Your task to perform on an android device: empty trash in google photos Image 0: 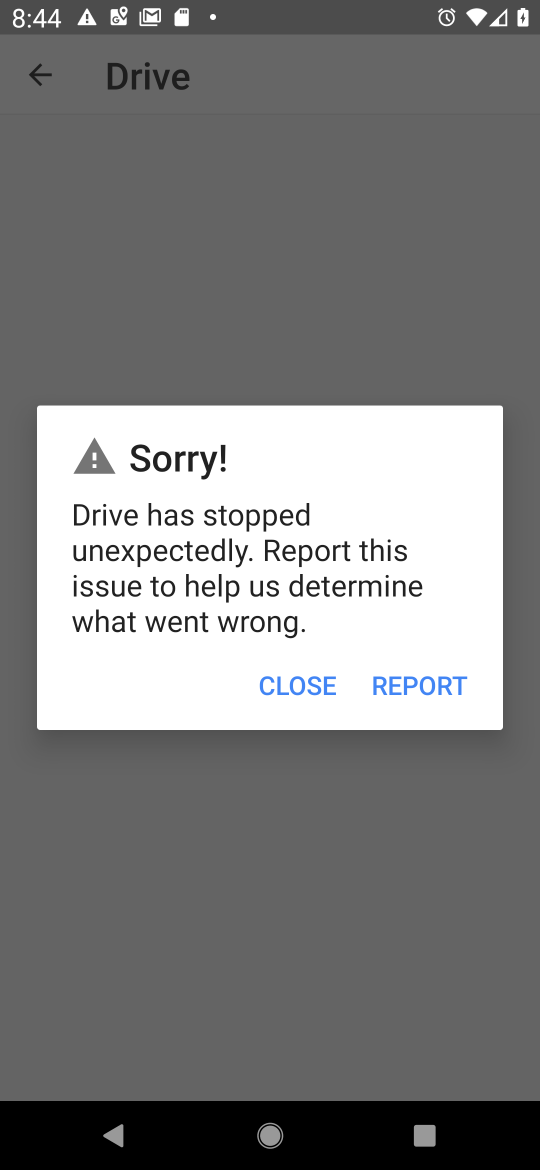
Step 0: press home button
Your task to perform on an android device: empty trash in google photos Image 1: 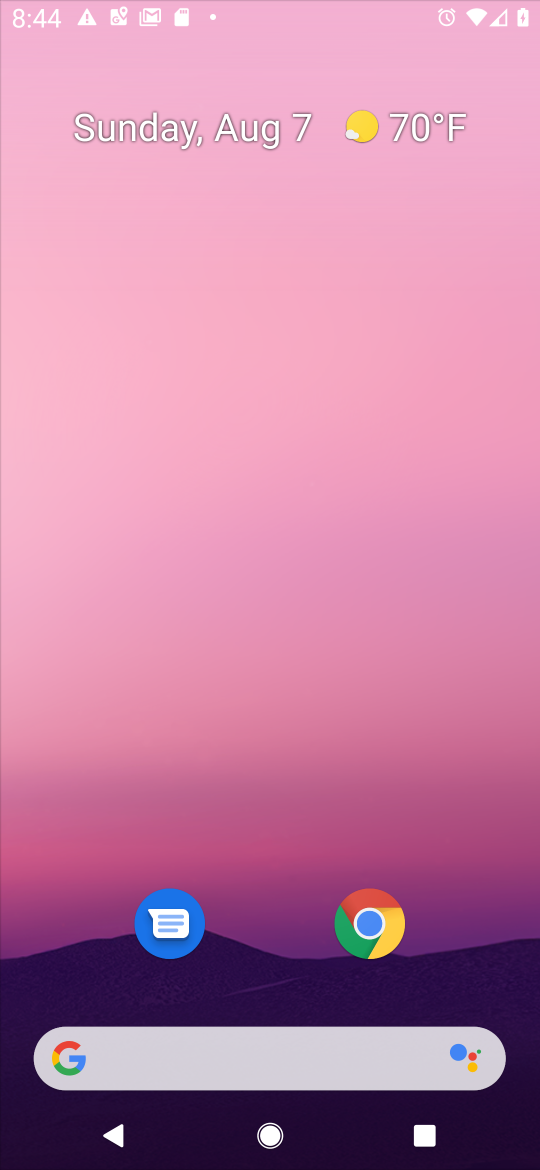
Step 1: drag from (486, 1071) to (177, 40)
Your task to perform on an android device: empty trash in google photos Image 2: 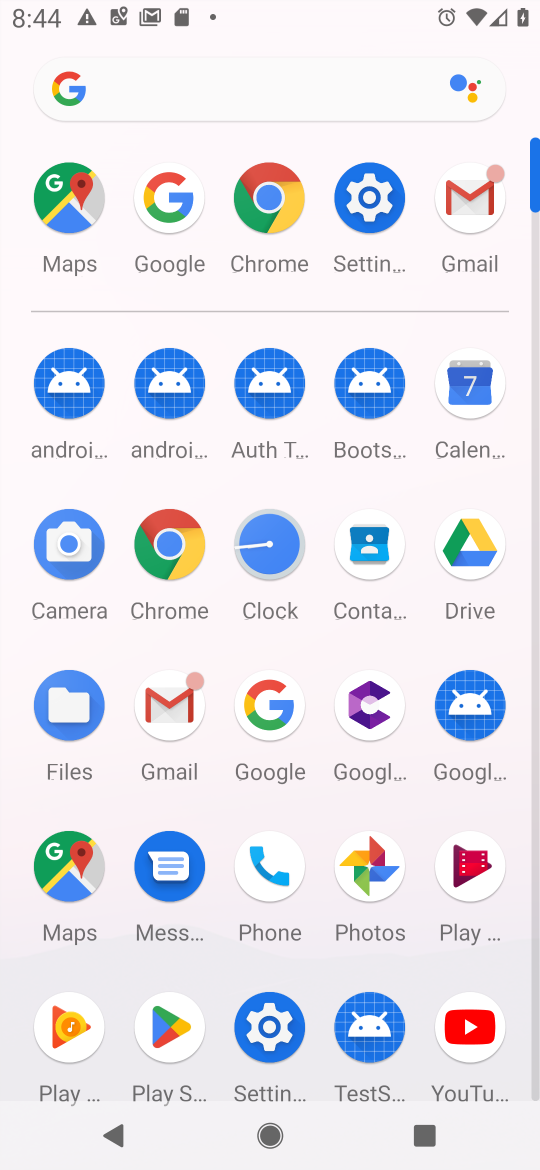
Step 2: click (366, 866)
Your task to perform on an android device: empty trash in google photos Image 3: 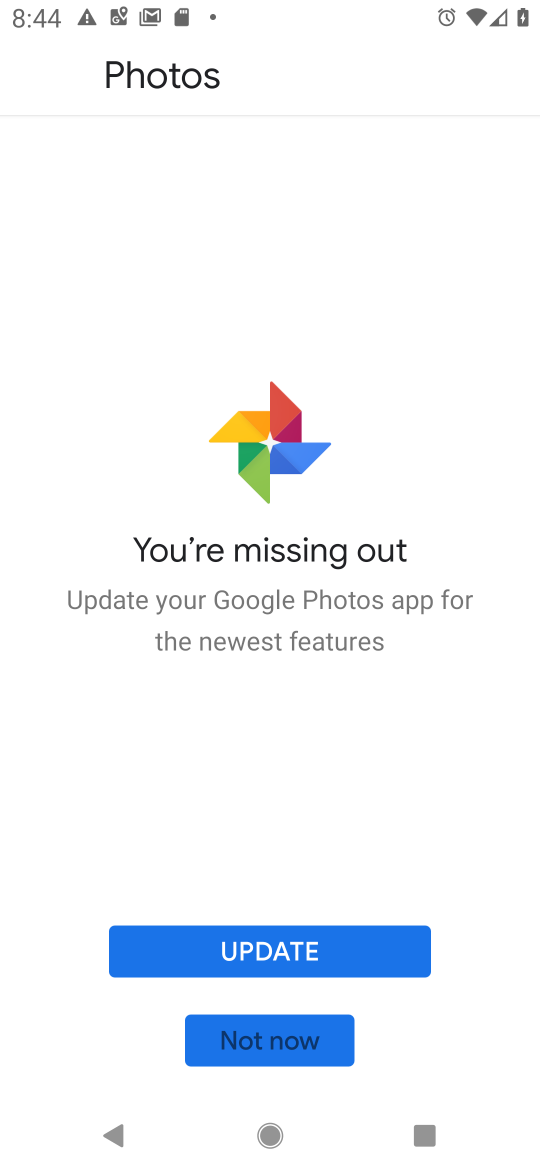
Step 3: click (414, 681)
Your task to perform on an android device: empty trash in google photos Image 4: 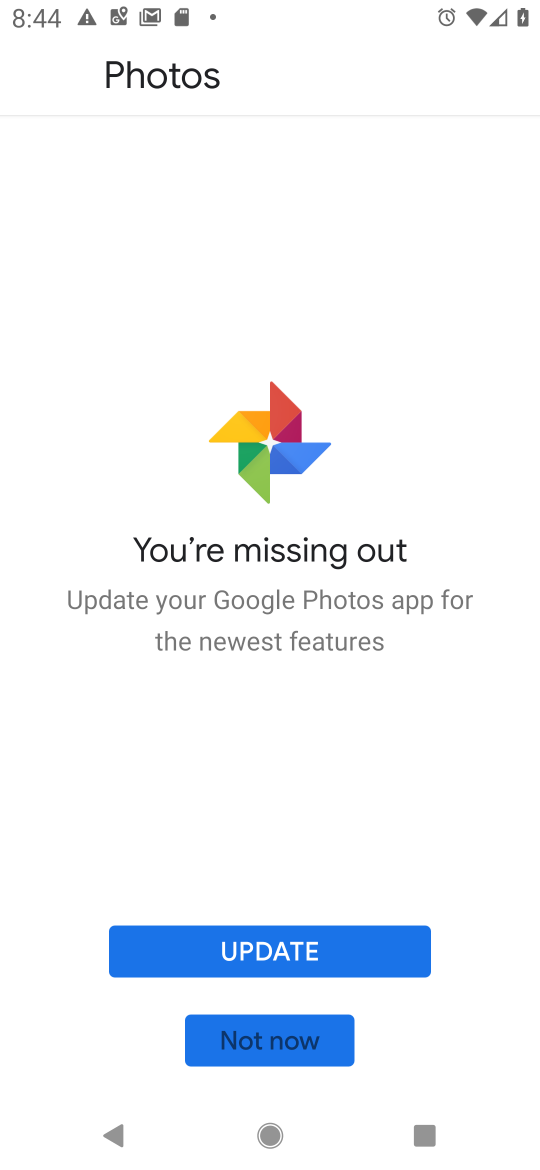
Step 4: click (238, 967)
Your task to perform on an android device: empty trash in google photos Image 5: 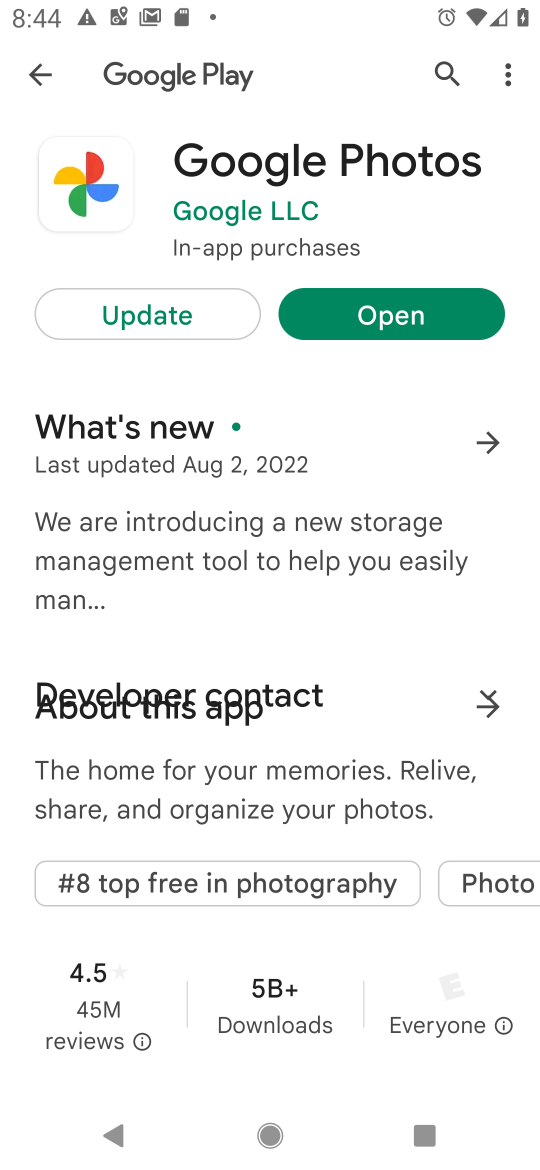
Step 5: click (131, 316)
Your task to perform on an android device: empty trash in google photos Image 6: 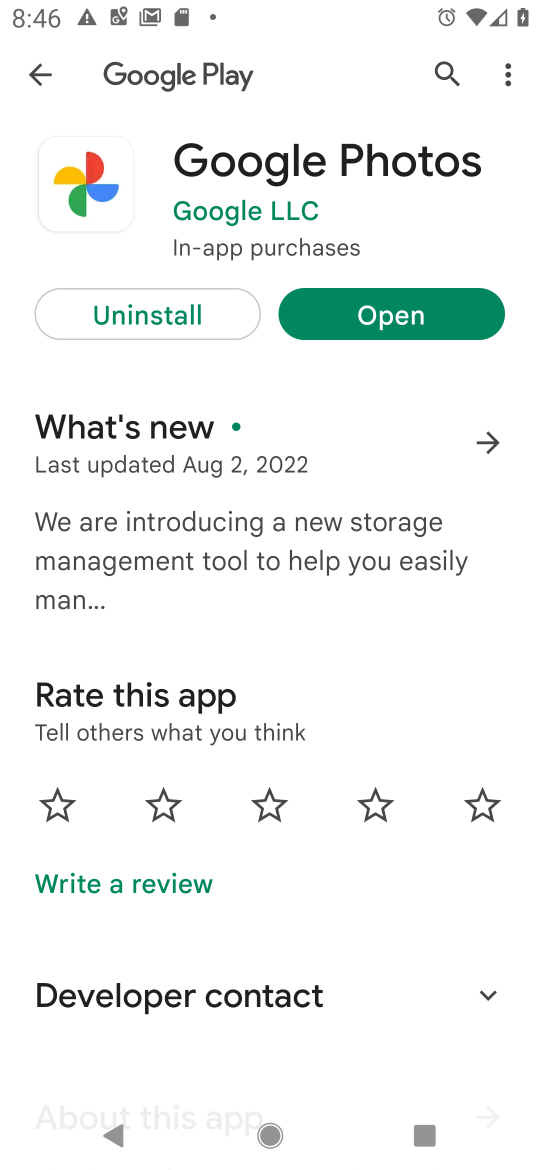
Step 6: click (375, 318)
Your task to perform on an android device: empty trash in google photos Image 7: 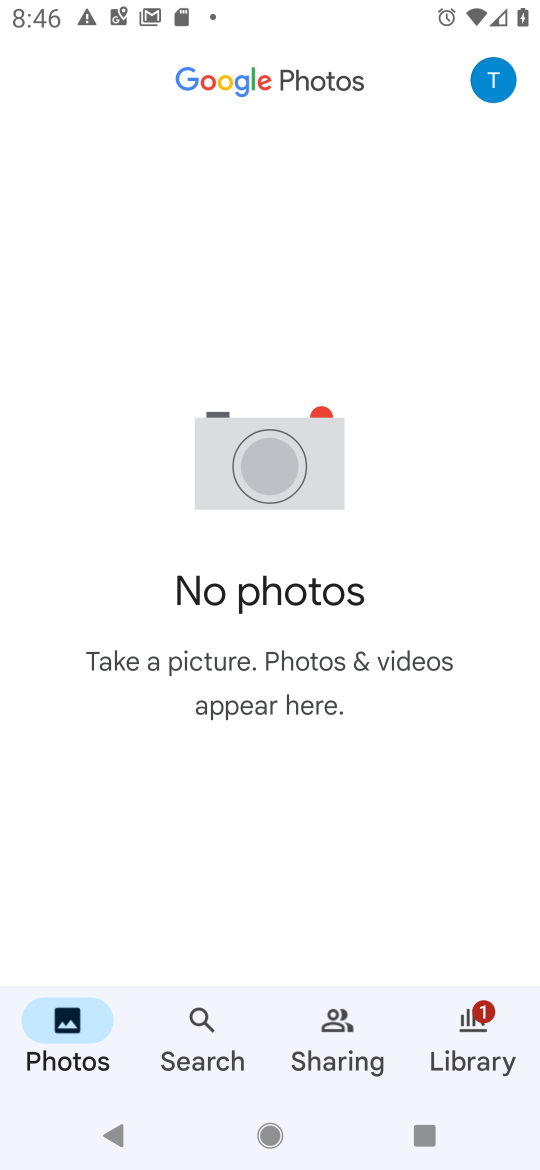
Step 7: click (500, 84)
Your task to perform on an android device: empty trash in google photos Image 8: 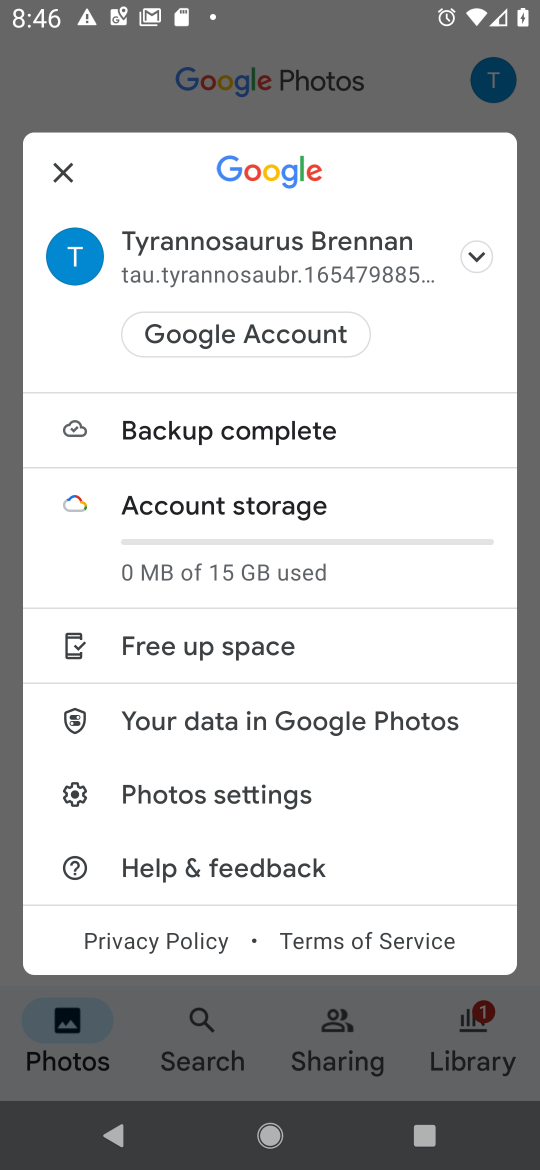
Step 8: task complete